Your task to perform on an android device: choose inbox layout in the gmail app Image 0: 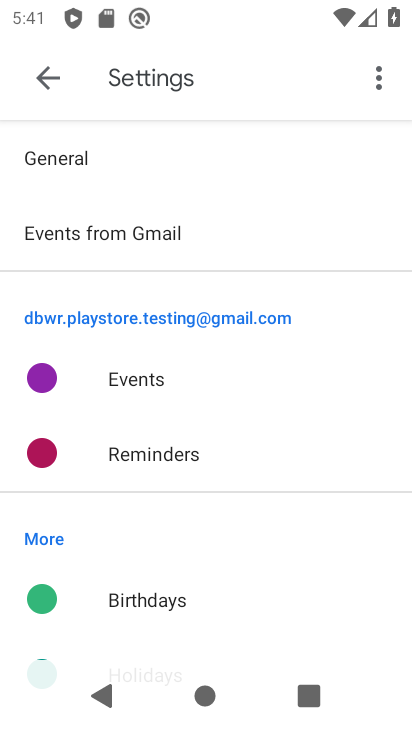
Step 0: press home button
Your task to perform on an android device: choose inbox layout in the gmail app Image 1: 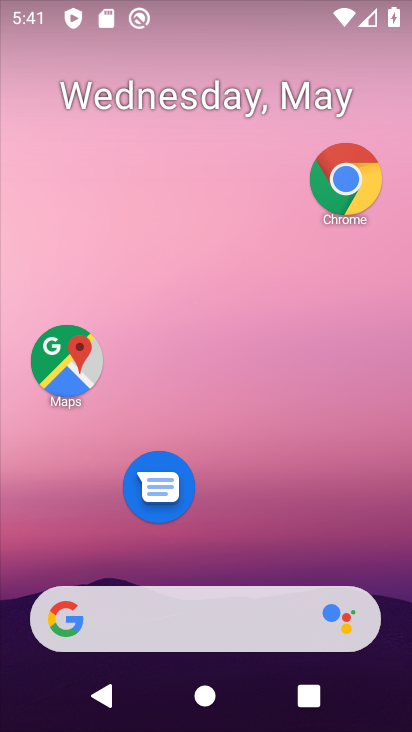
Step 1: drag from (229, 549) to (189, 164)
Your task to perform on an android device: choose inbox layout in the gmail app Image 2: 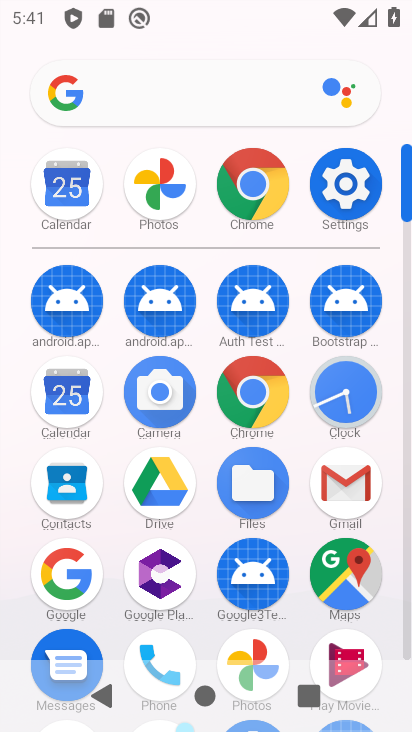
Step 2: click (350, 504)
Your task to perform on an android device: choose inbox layout in the gmail app Image 3: 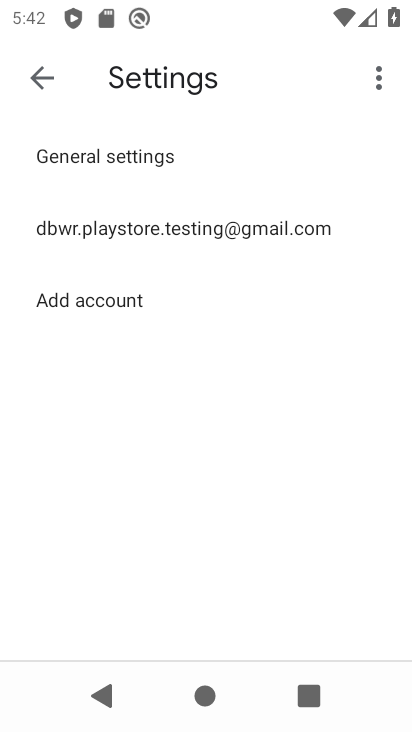
Step 3: click (165, 219)
Your task to perform on an android device: choose inbox layout in the gmail app Image 4: 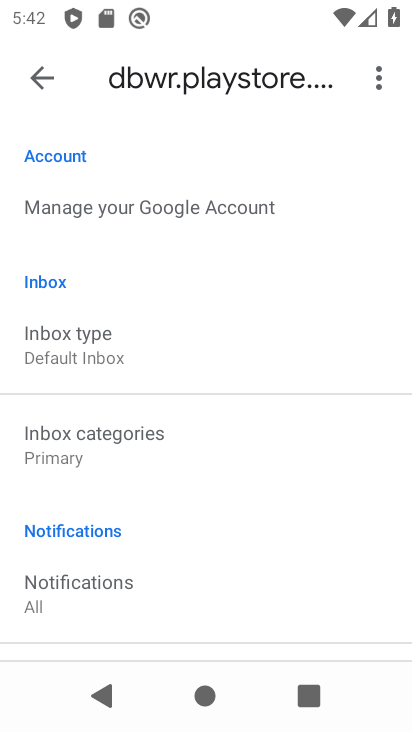
Step 4: click (55, 355)
Your task to perform on an android device: choose inbox layout in the gmail app Image 5: 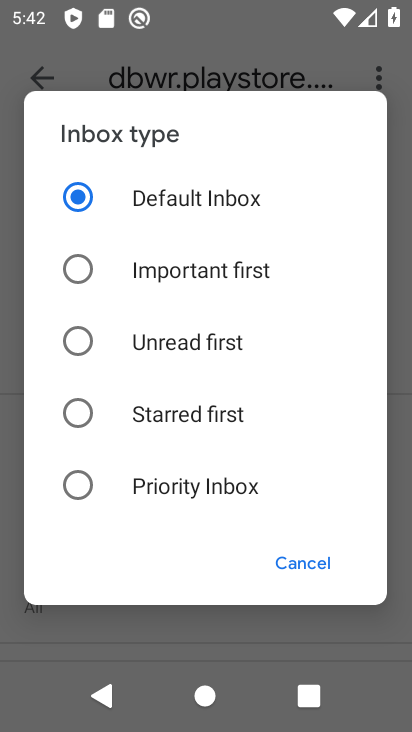
Step 5: click (87, 490)
Your task to perform on an android device: choose inbox layout in the gmail app Image 6: 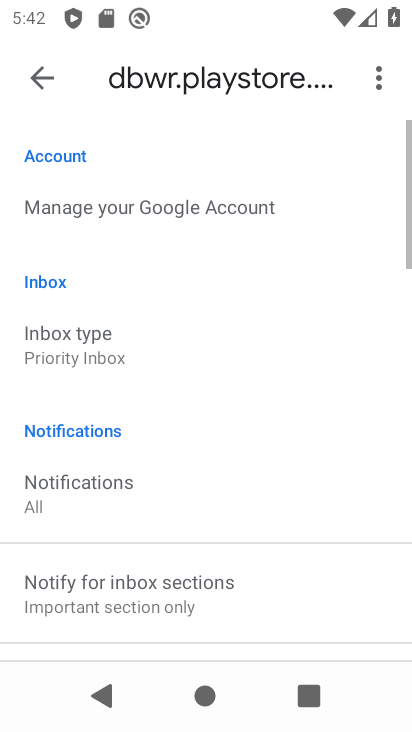
Step 6: task complete